Your task to perform on an android device: open the mobile data screen to see how much data has been used Image 0: 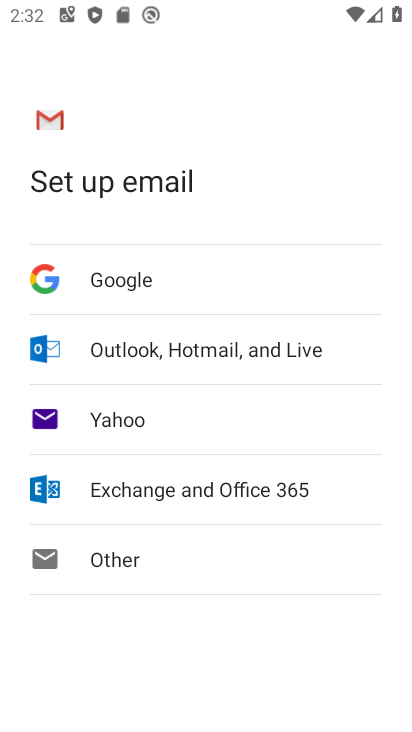
Step 0: press home button
Your task to perform on an android device: open the mobile data screen to see how much data has been used Image 1: 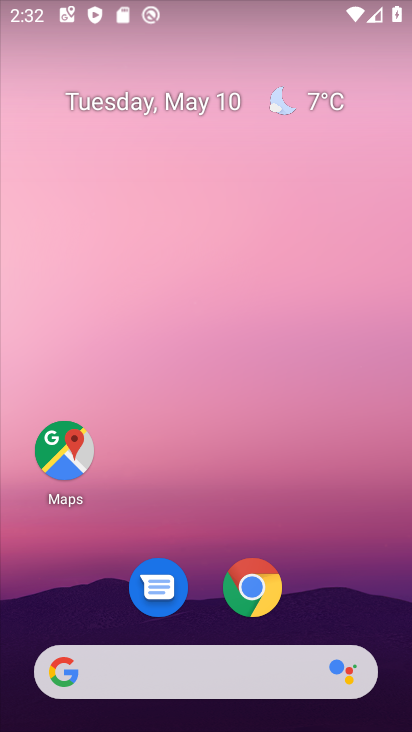
Step 1: drag from (338, 16) to (332, 615)
Your task to perform on an android device: open the mobile data screen to see how much data has been used Image 2: 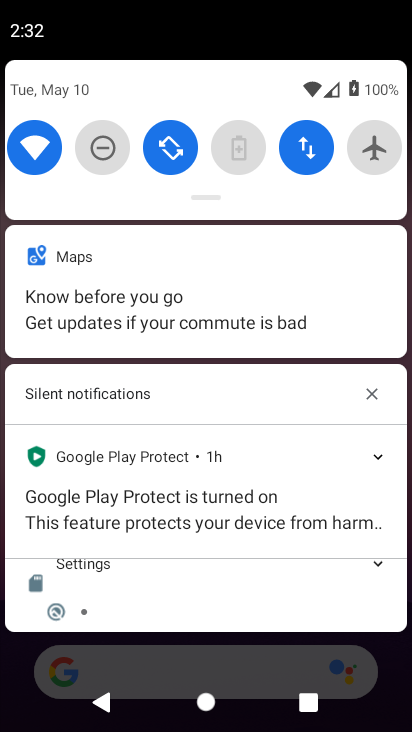
Step 2: click (315, 141)
Your task to perform on an android device: open the mobile data screen to see how much data has been used Image 3: 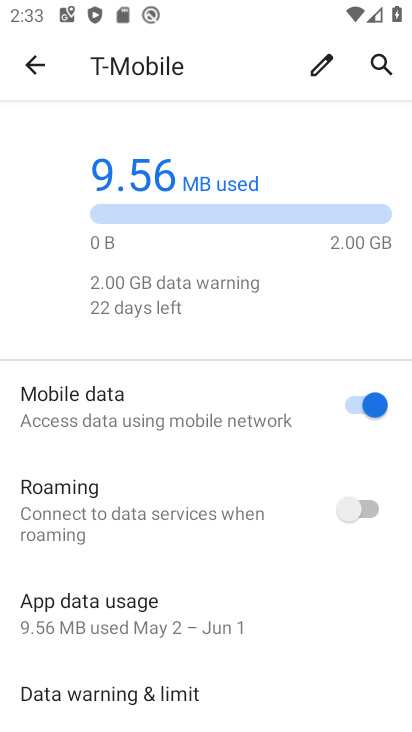
Step 3: task complete